Your task to perform on an android device: What's the weather going to be this weekend? Image 0: 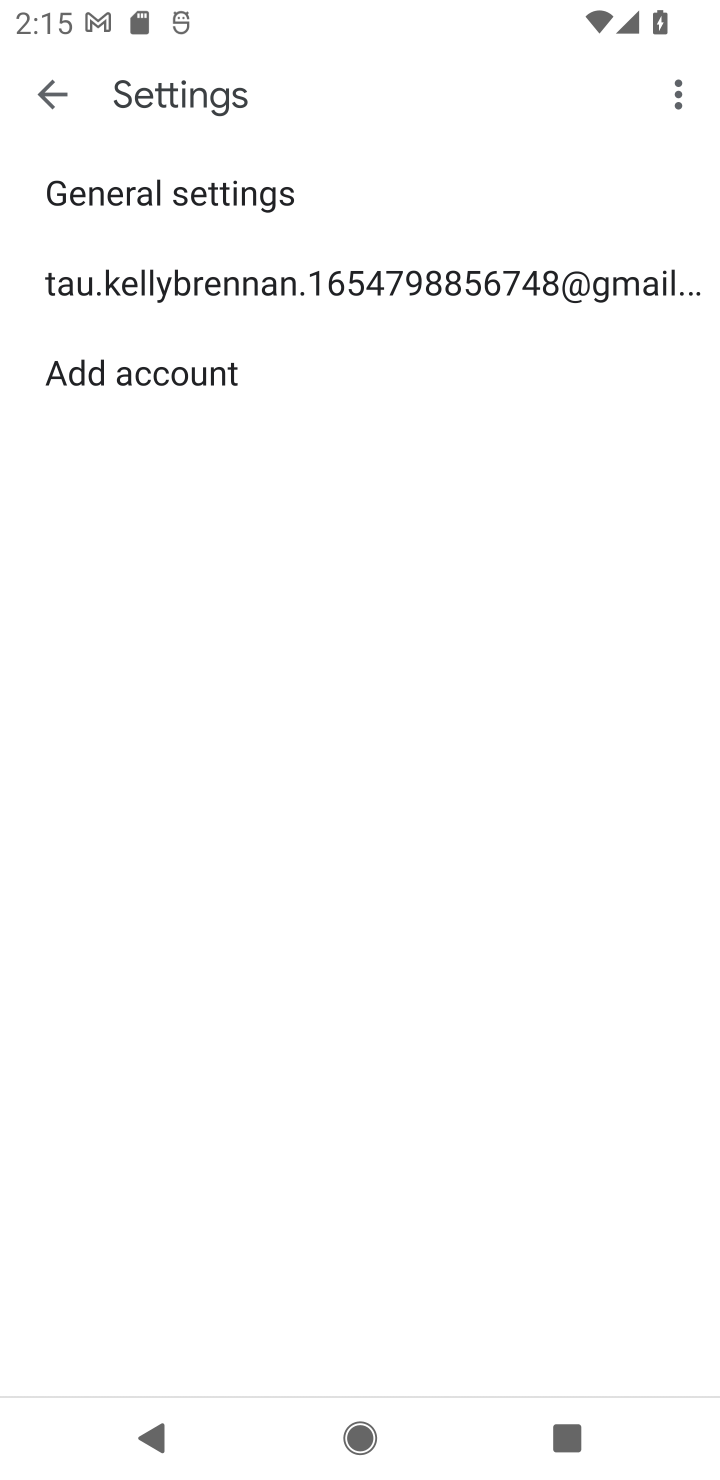
Step 0: press home button
Your task to perform on an android device: What's the weather going to be this weekend? Image 1: 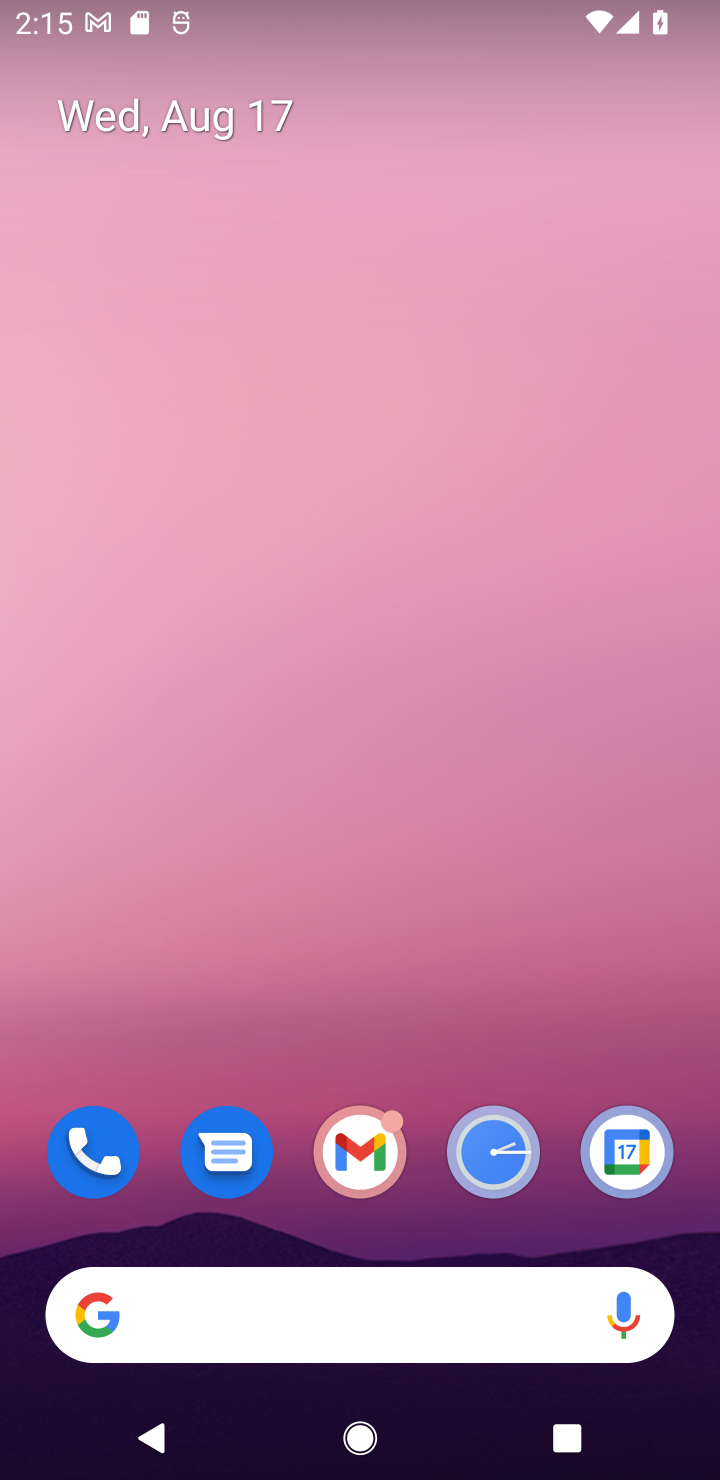
Step 1: drag from (563, 1213) to (300, 53)
Your task to perform on an android device: What's the weather going to be this weekend? Image 2: 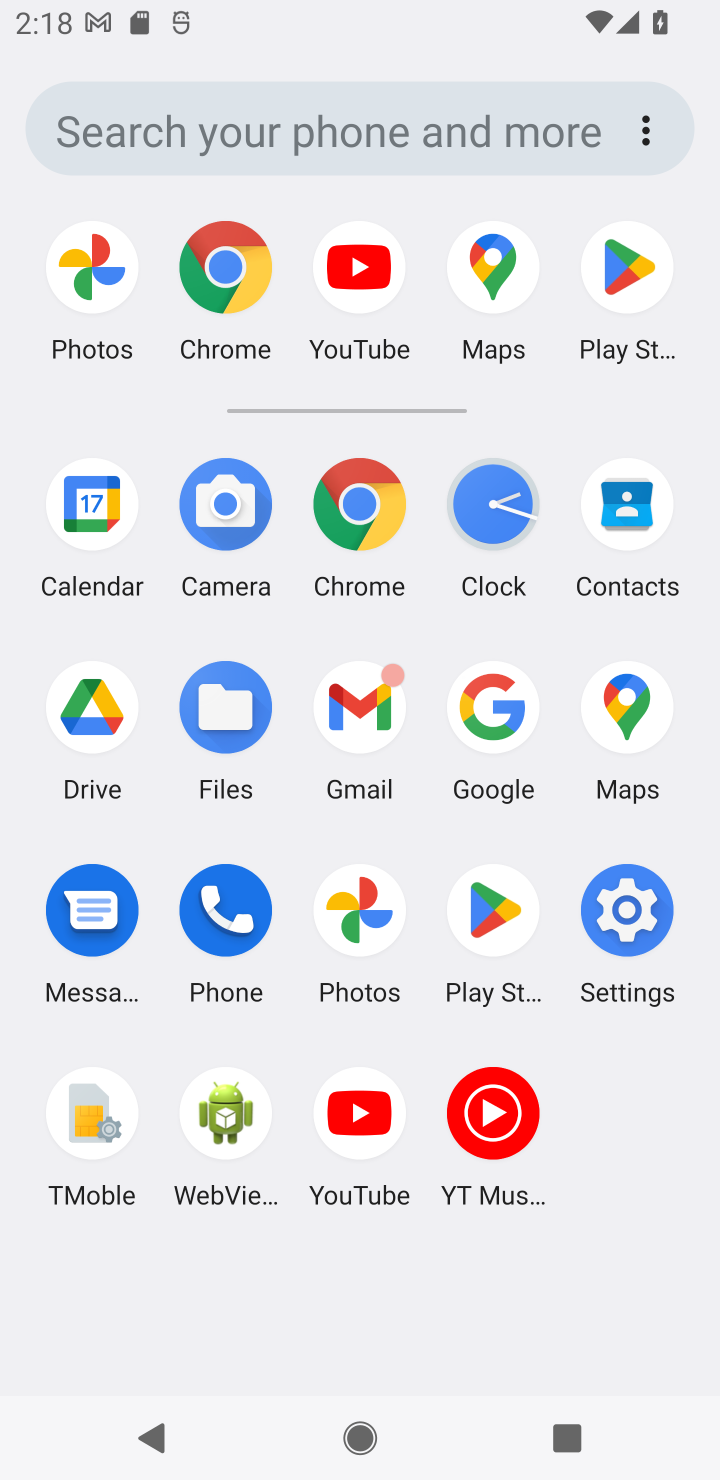
Step 2: click (455, 715)
Your task to perform on an android device: What's the weather going to be this weekend? Image 3: 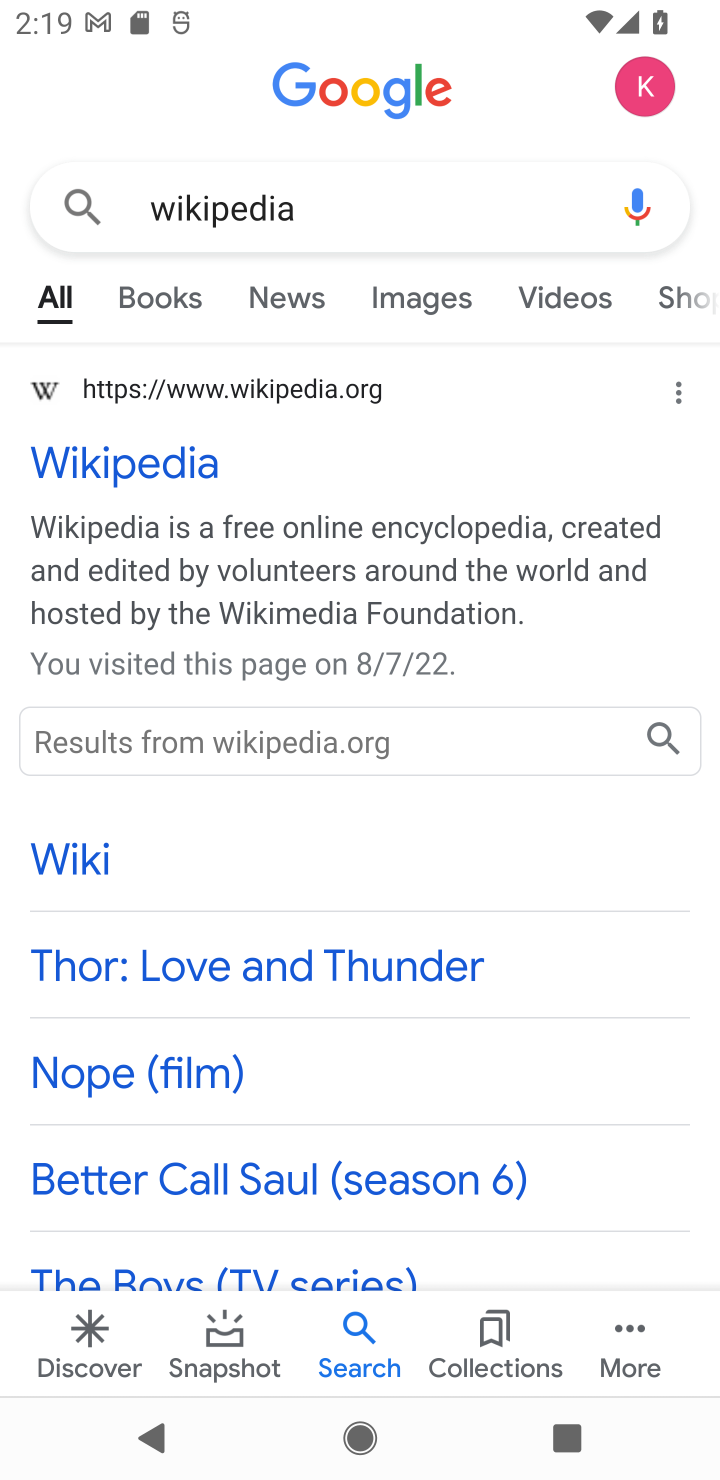
Step 3: task complete